Your task to perform on an android device: open app "WhatsApp Messenger" (install if not already installed) and go to login screen Image 0: 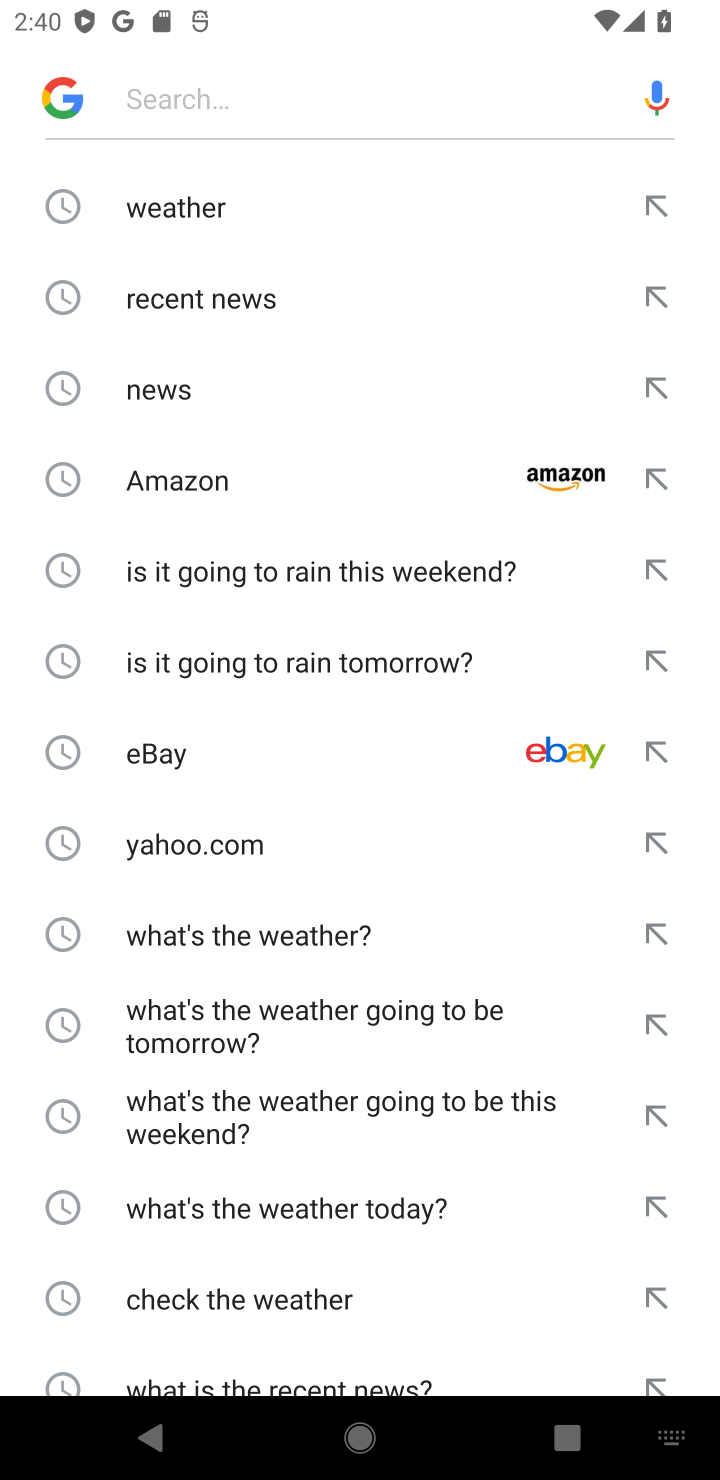
Step 0: press home button
Your task to perform on an android device: open app "WhatsApp Messenger" (install if not already installed) and go to login screen Image 1: 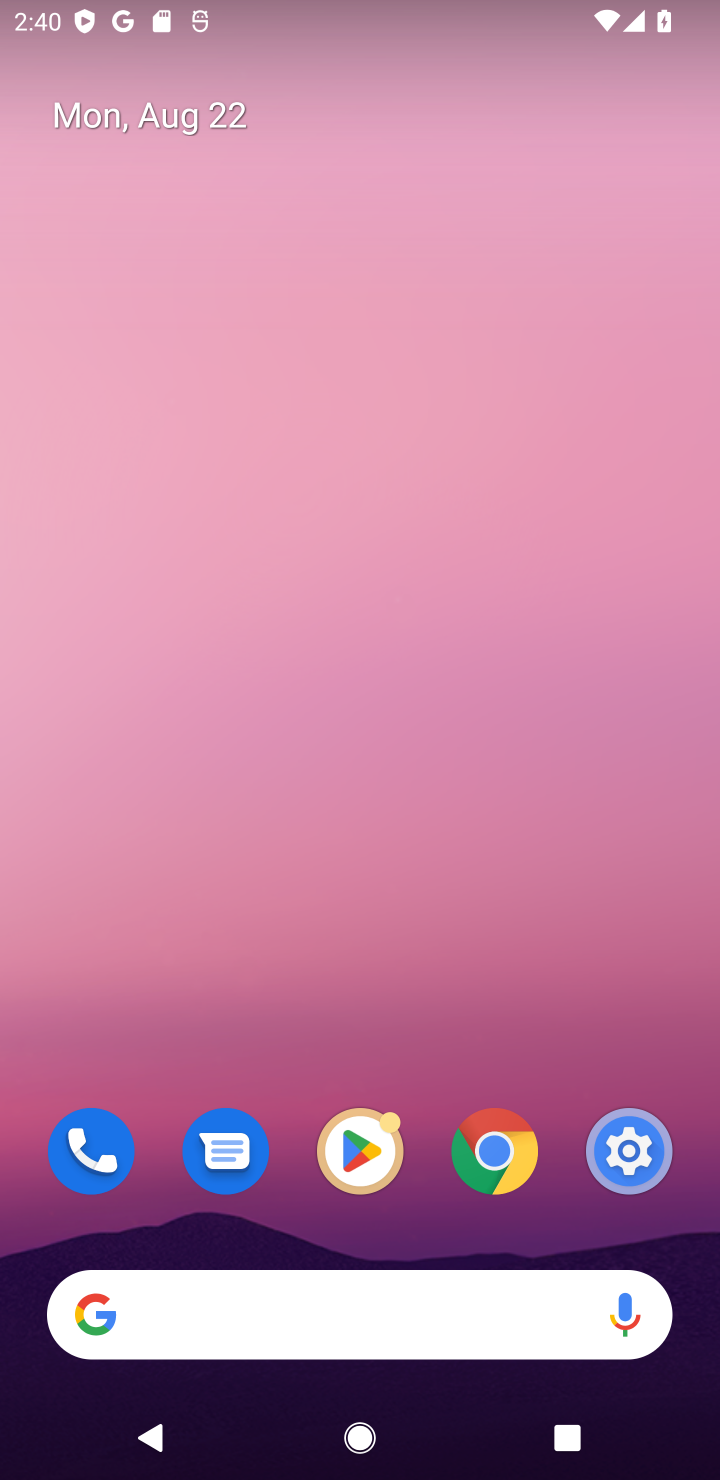
Step 1: drag from (351, 939) to (353, 541)
Your task to perform on an android device: open app "WhatsApp Messenger" (install if not already installed) and go to login screen Image 2: 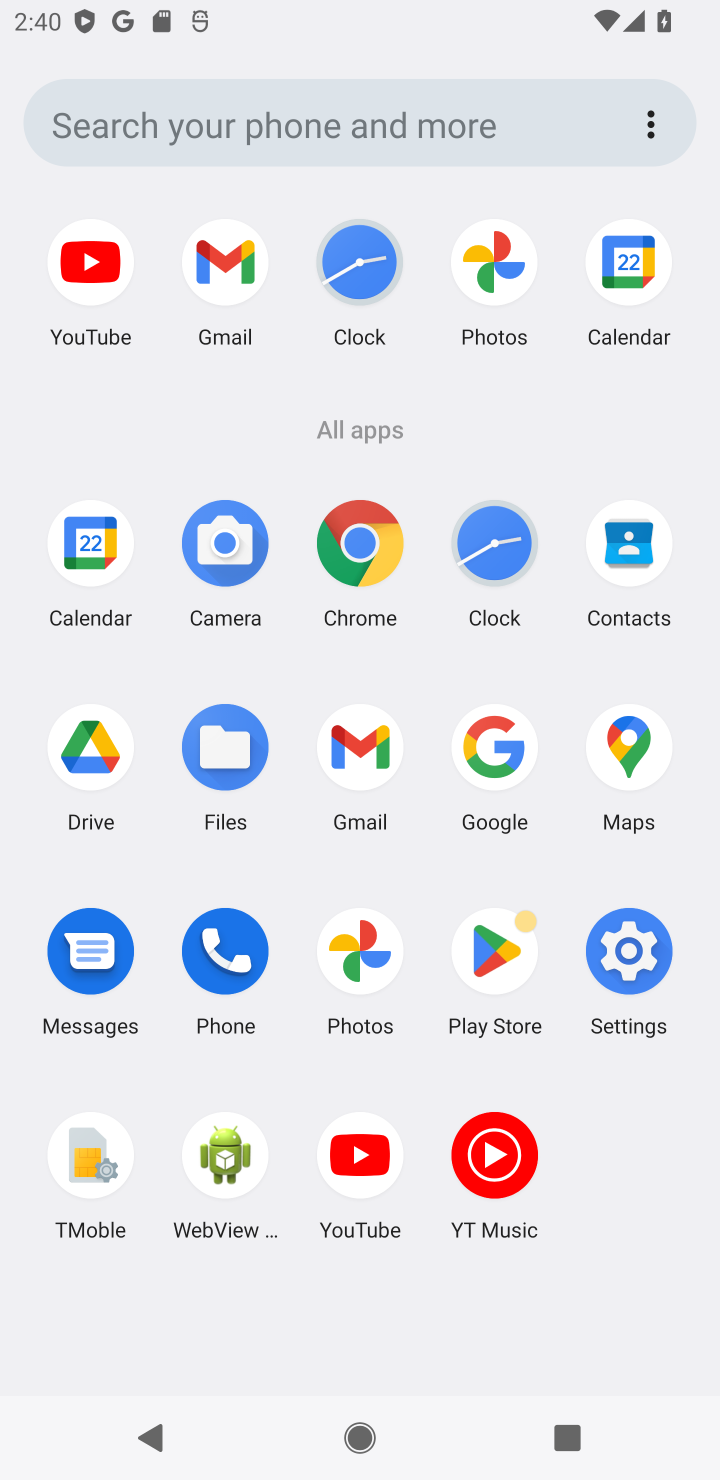
Step 2: click (505, 959)
Your task to perform on an android device: open app "WhatsApp Messenger" (install if not already installed) and go to login screen Image 3: 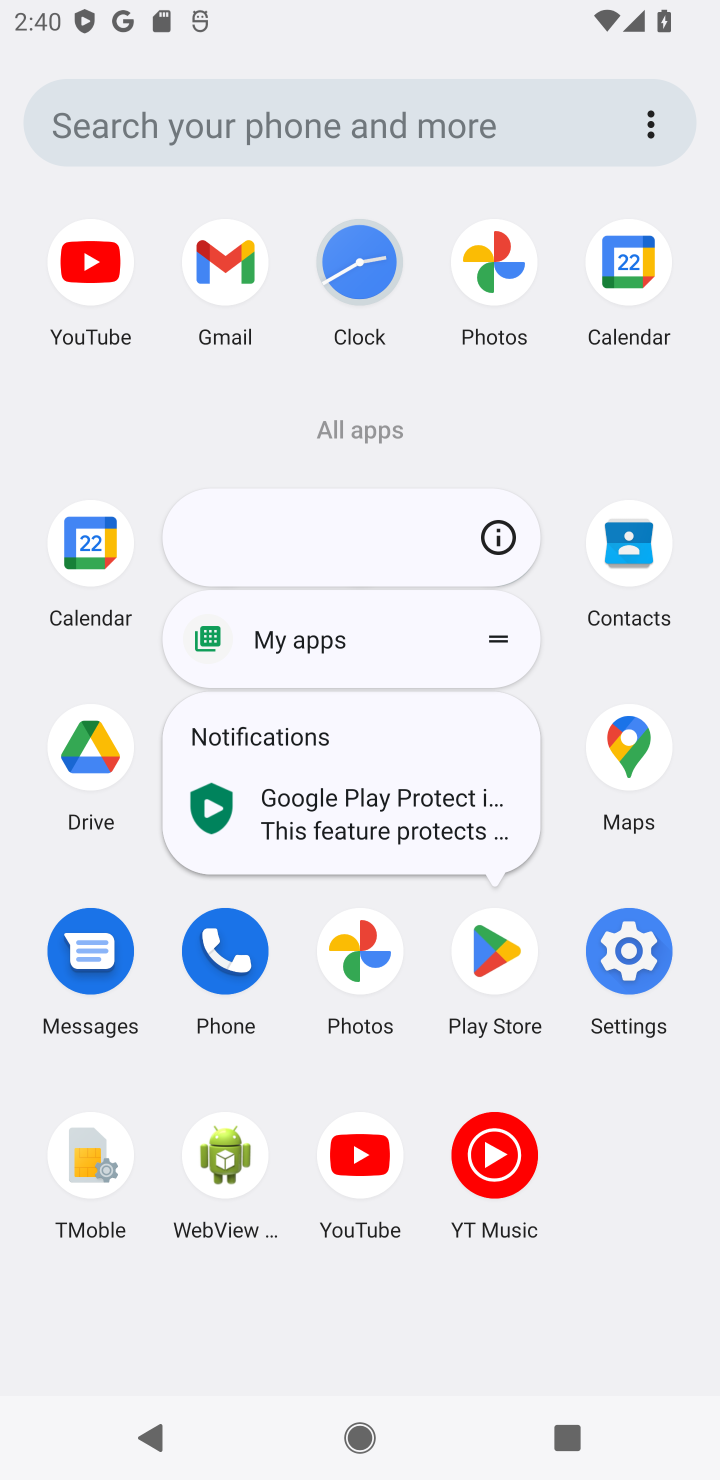
Step 3: click (493, 937)
Your task to perform on an android device: open app "WhatsApp Messenger" (install if not already installed) and go to login screen Image 4: 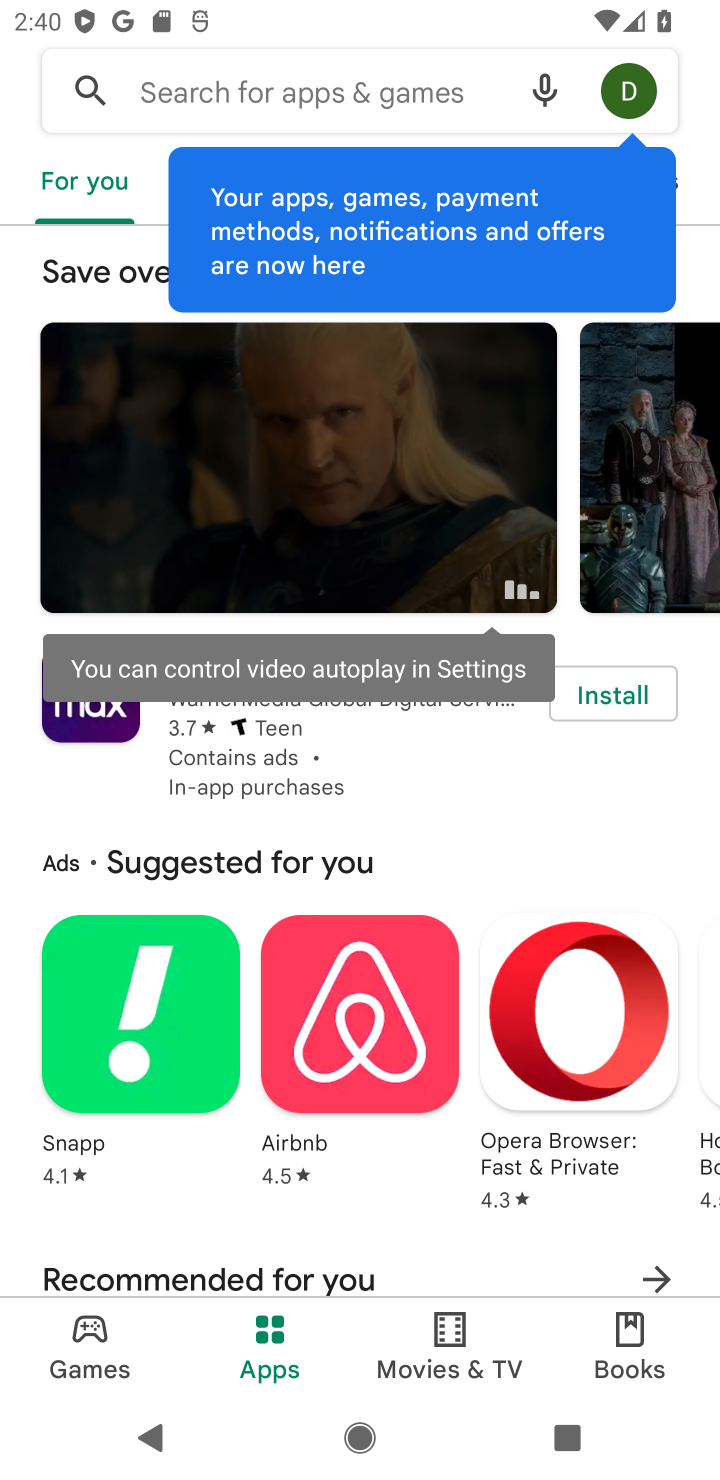
Step 4: click (309, 82)
Your task to perform on an android device: open app "WhatsApp Messenger" (install if not already installed) and go to login screen Image 5: 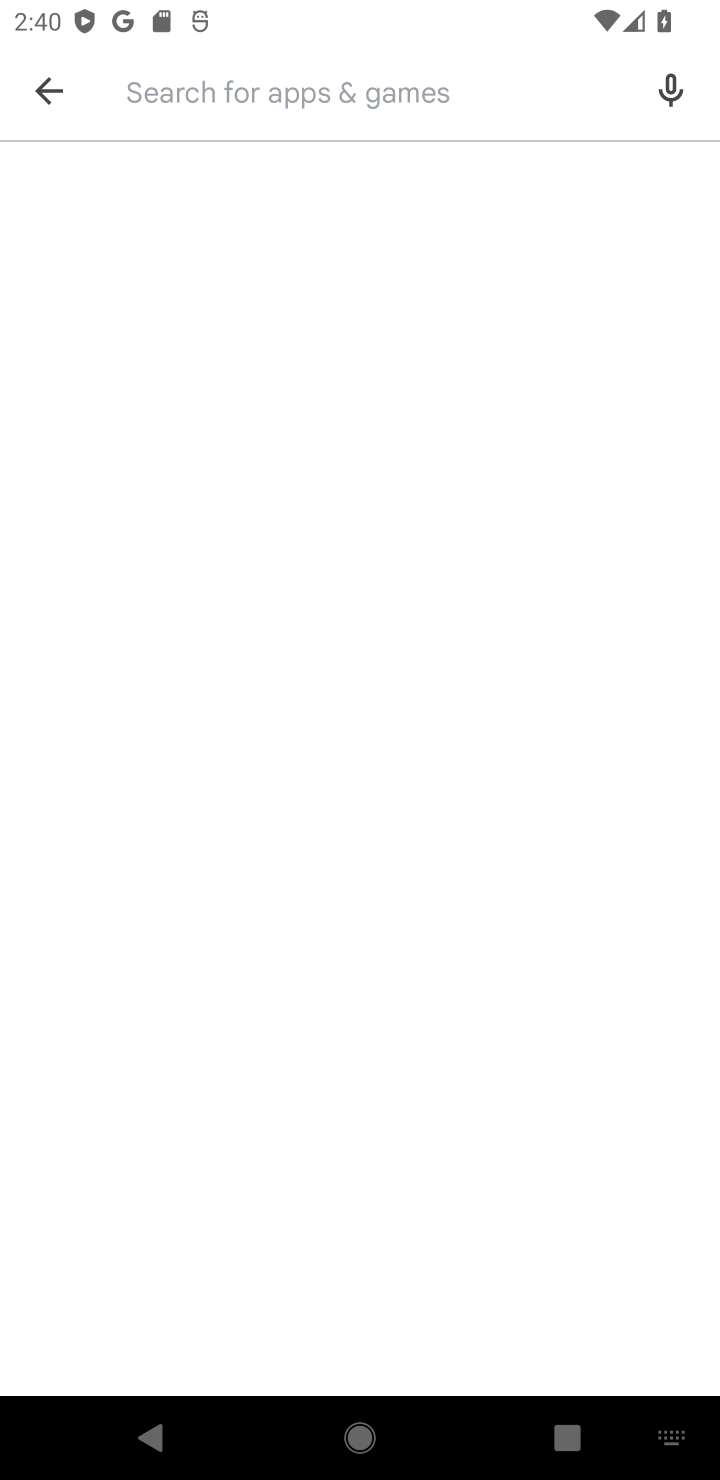
Step 5: type "WhatsApp Messenger"
Your task to perform on an android device: open app "WhatsApp Messenger" (install if not already installed) and go to login screen Image 6: 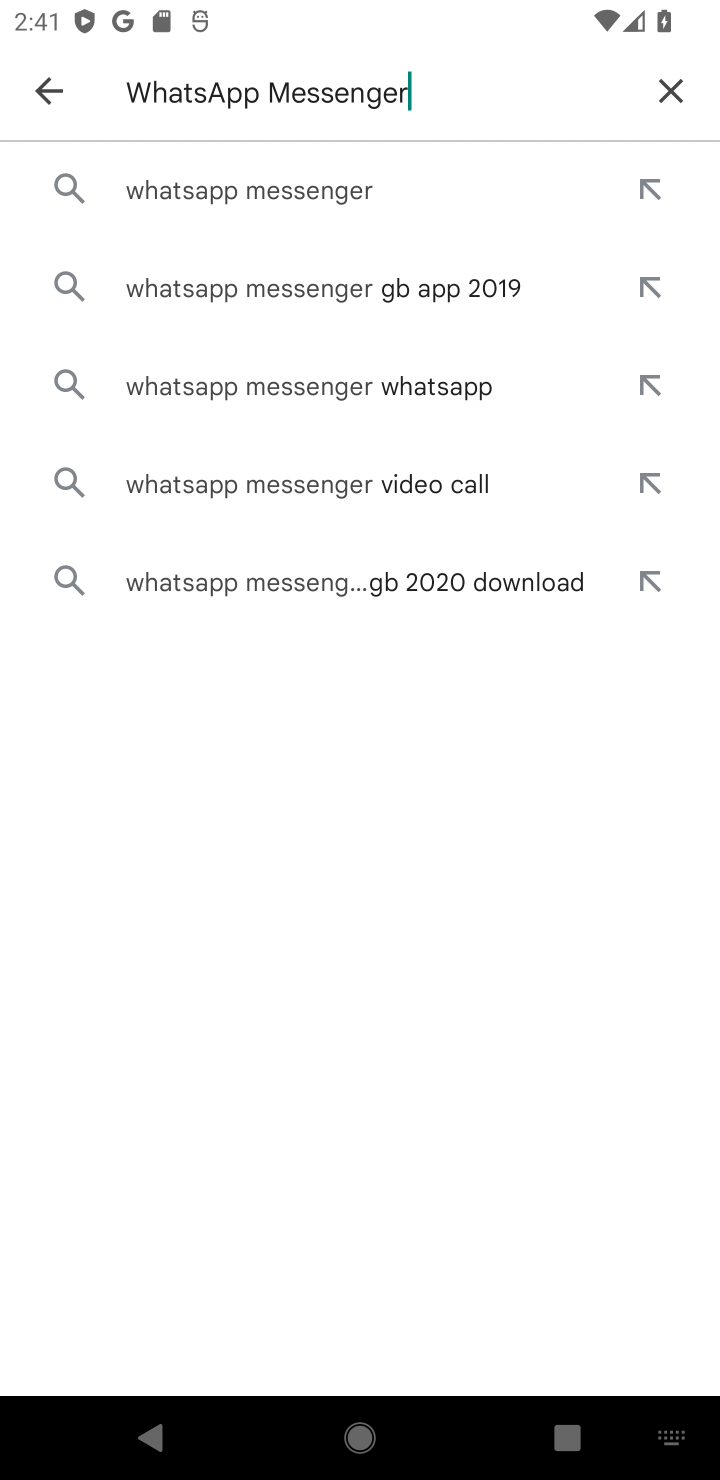
Step 6: click (365, 192)
Your task to perform on an android device: open app "WhatsApp Messenger" (install if not already installed) and go to login screen Image 7: 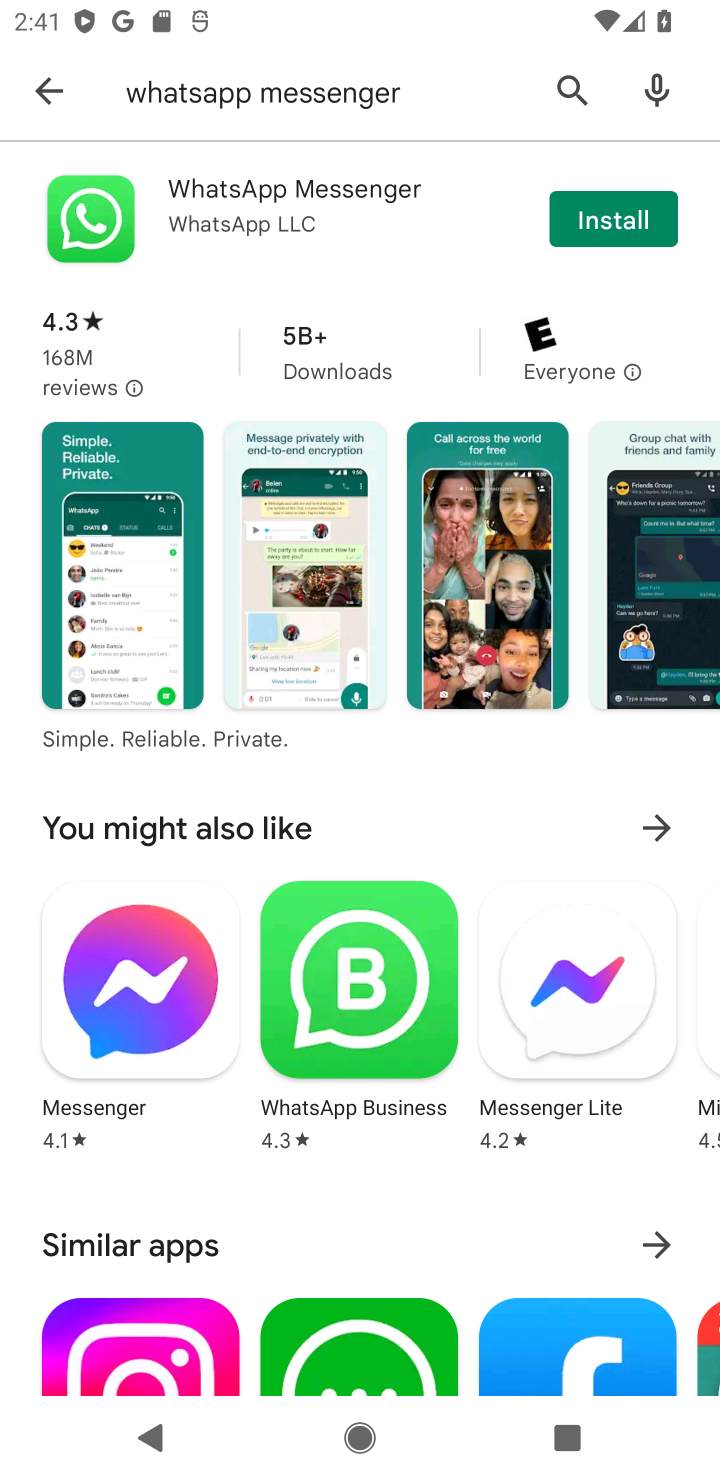
Step 7: click (622, 218)
Your task to perform on an android device: open app "WhatsApp Messenger" (install if not already installed) and go to login screen Image 8: 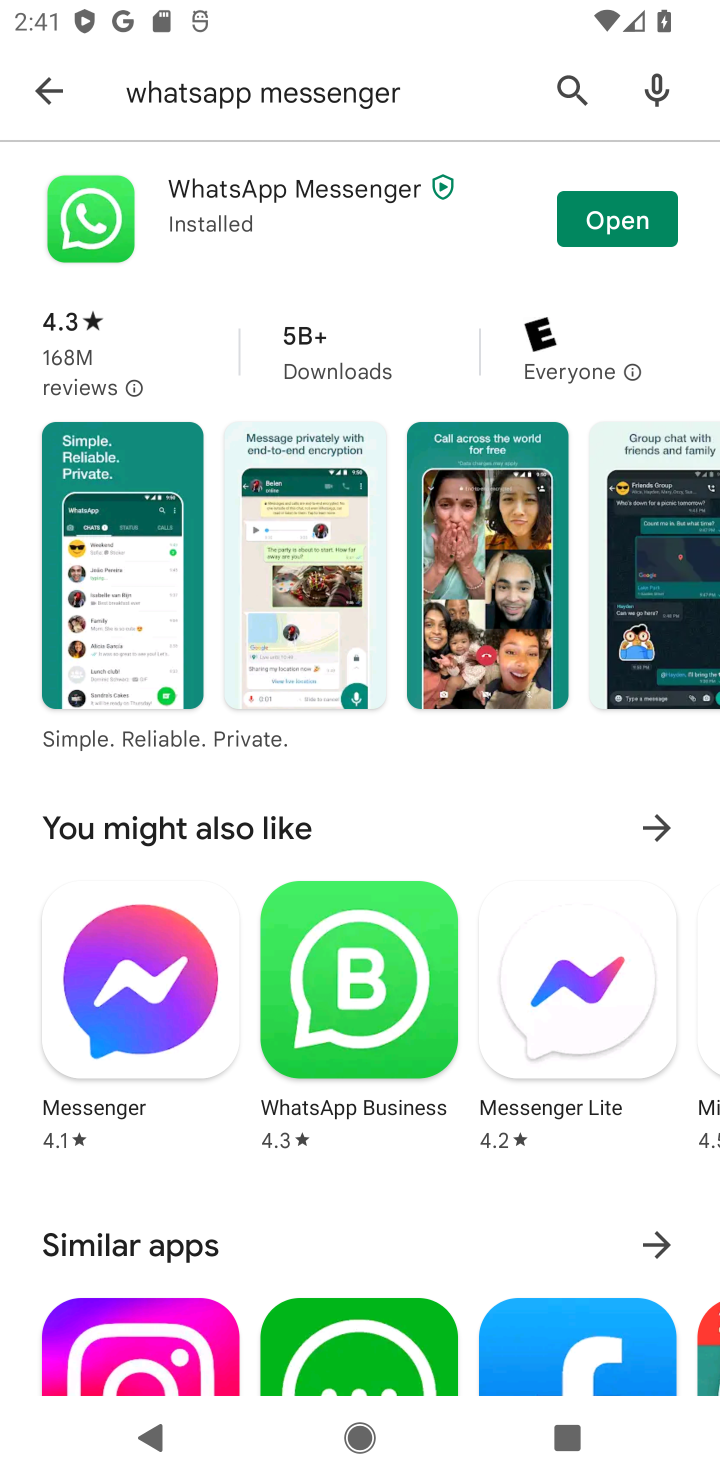
Step 8: click (662, 210)
Your task to perform on an android device: open app "WhatsApp Messenger" (install if not already installed) and go to login screen Image 9: 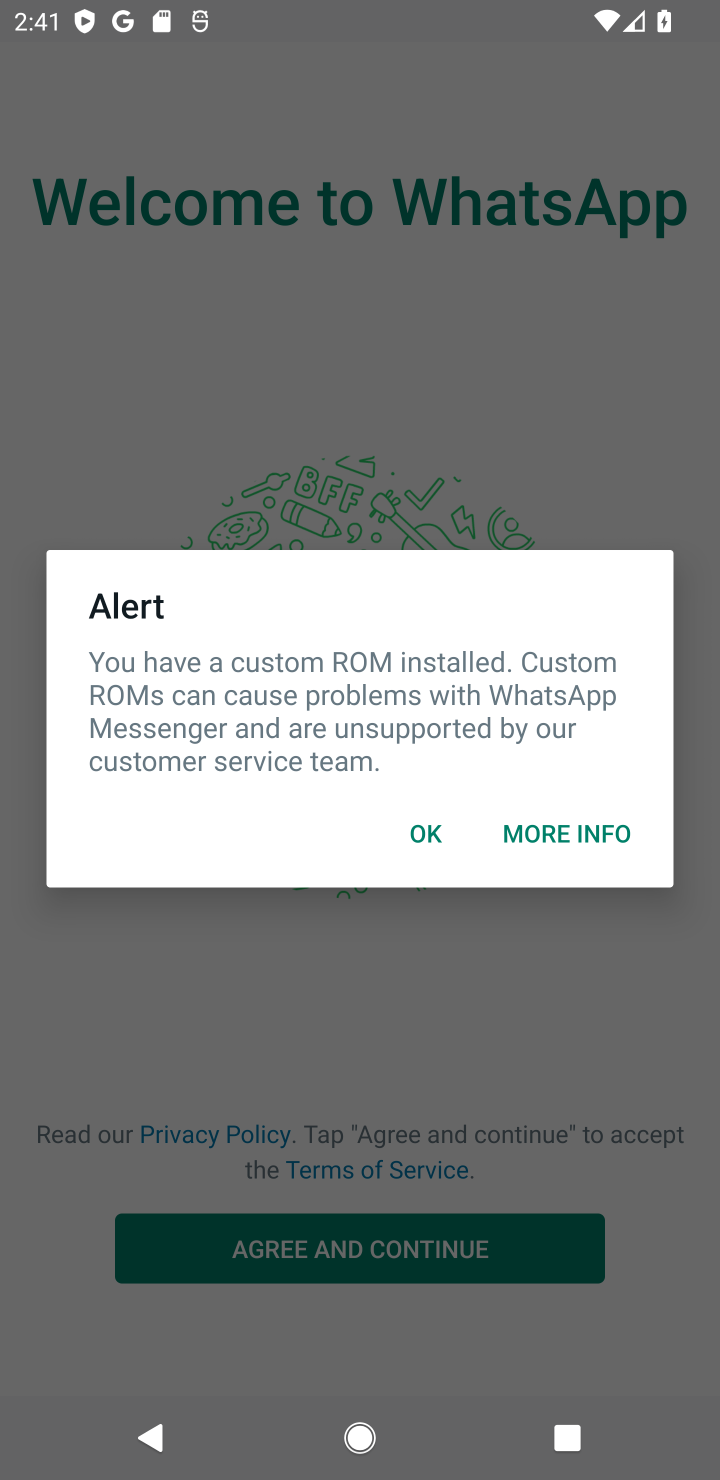
Step 9: task complete